Your task to perform on an android device: toggle sleep mode Image 0: 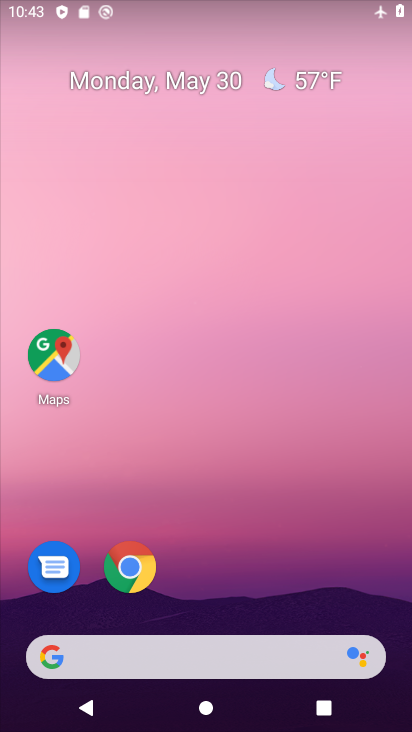
Step 0: drag from (199, 612) to (177, 185)
Your task to perform on an android device: toggle sleep mode Image 1: 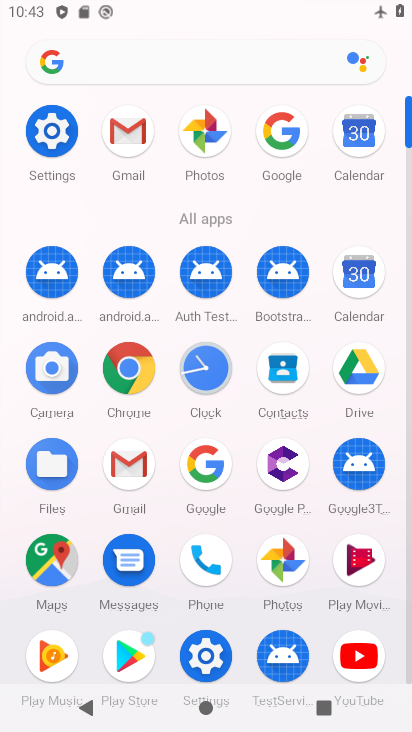
Step 1: click (67, 147)
Your task to perform on an android device: toggle sleep mode Image 2: 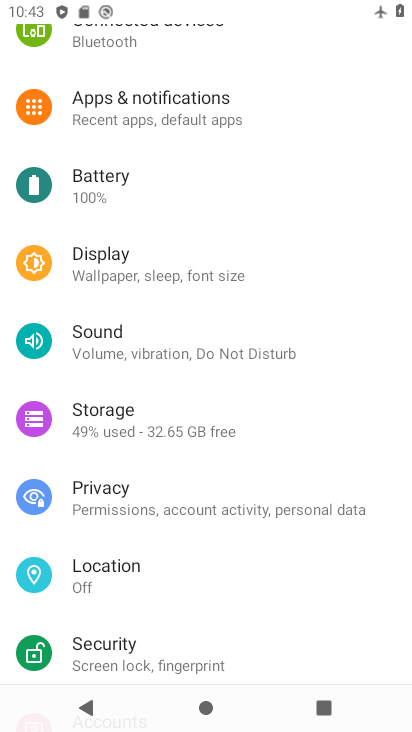
Step 2: drag from (155, 300) to (185, 598)
Your task to perform on an android device: toggle sleep mode Image 3: 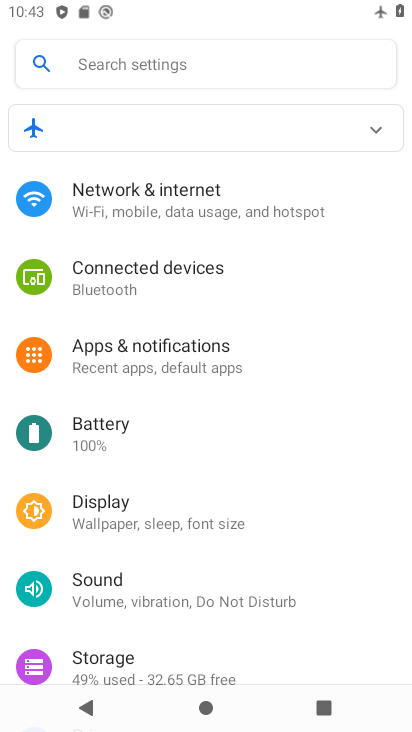
Step 3: click (153, 526)
Your task to perform on an android device: toggle sleep mode Image 4: 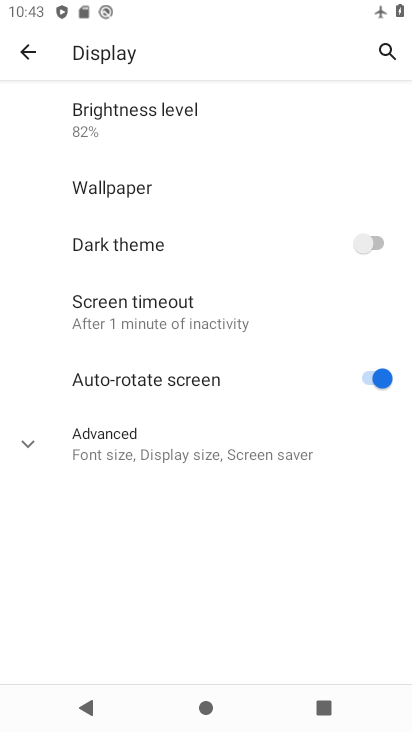
Step 4: click (150, 307)
Your task to perform on an android device: toggle sleep mode Image 5: 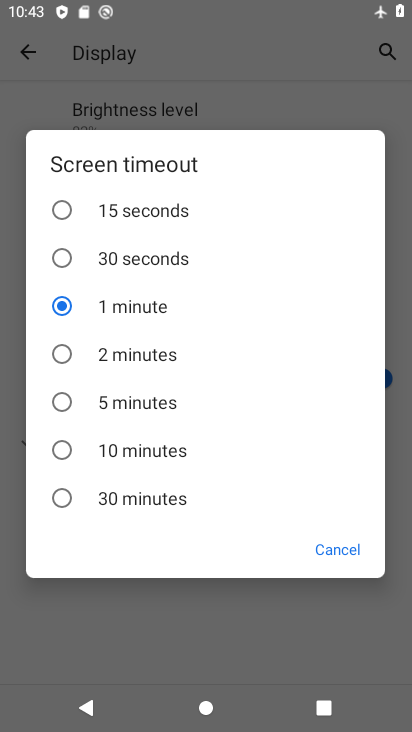
Step 5: click (167, 468)
Your task to perform on an android device: toggle sleep mode Image 6: 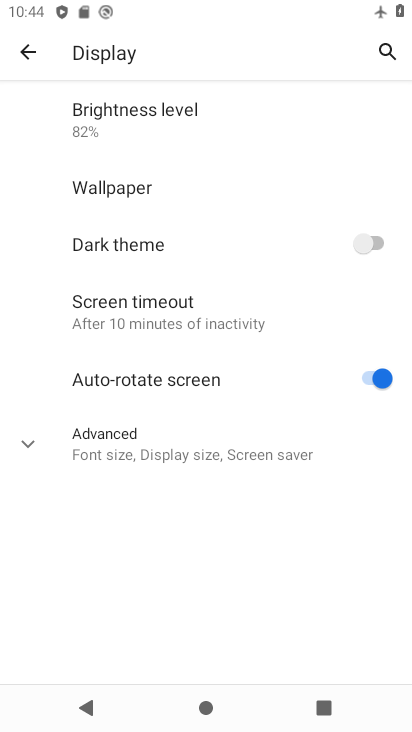
Step 6: task complete